Your task to perform on an android device: Go to wifi settings Image 0: 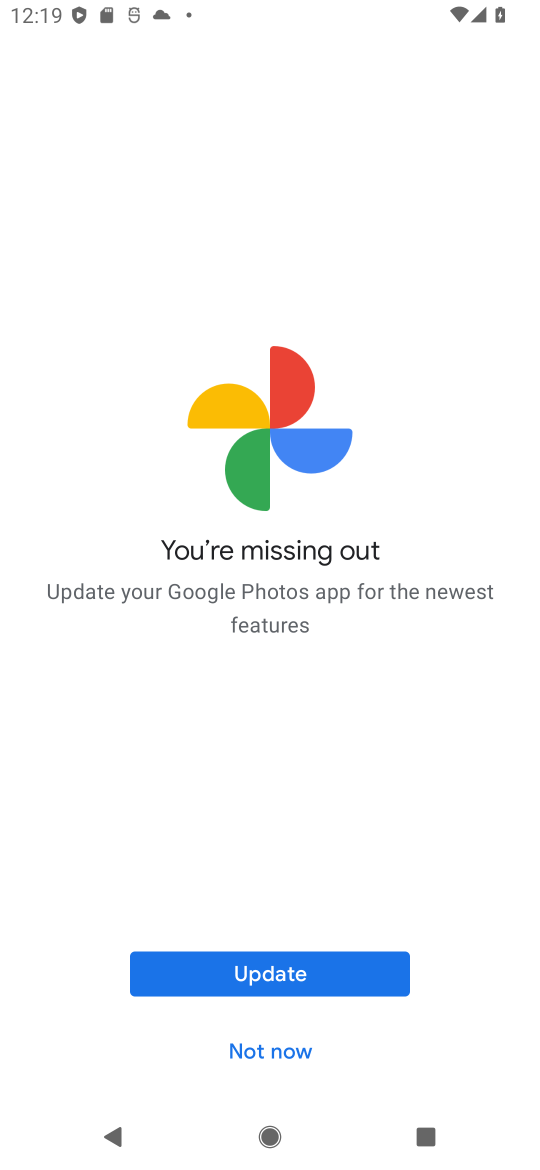
Step 0: press home button
Your task to perform on an android device: Go to wifi settings Image 1: 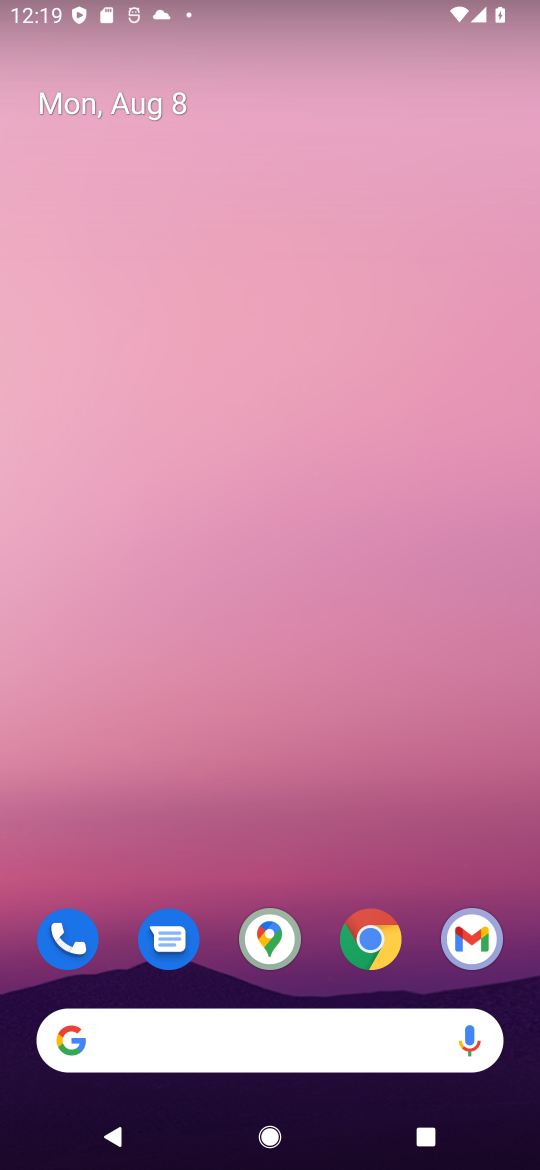
Step 1: drag from (173, 1037) to (318, 438)
Your task to perform on an android device: Go to wifi settings Image 2: 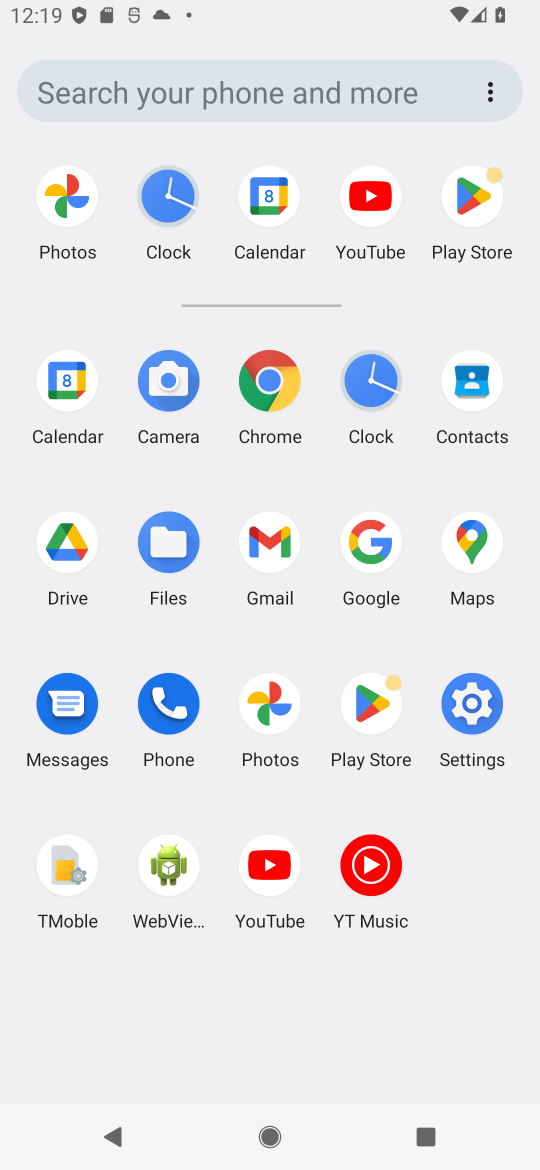
Step 2: click (471, 704)
Your task to perform on an android device: Go to wifi settings Image 3: 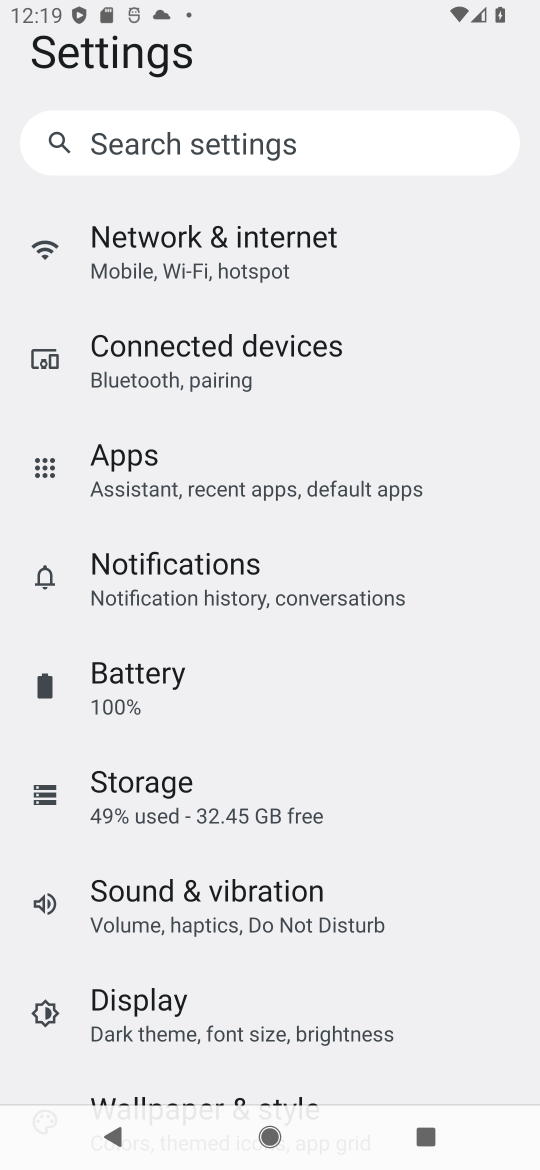
Step 3: click (213, 270)
Your task to perform on an android device: Go to wifi settings Image 4: 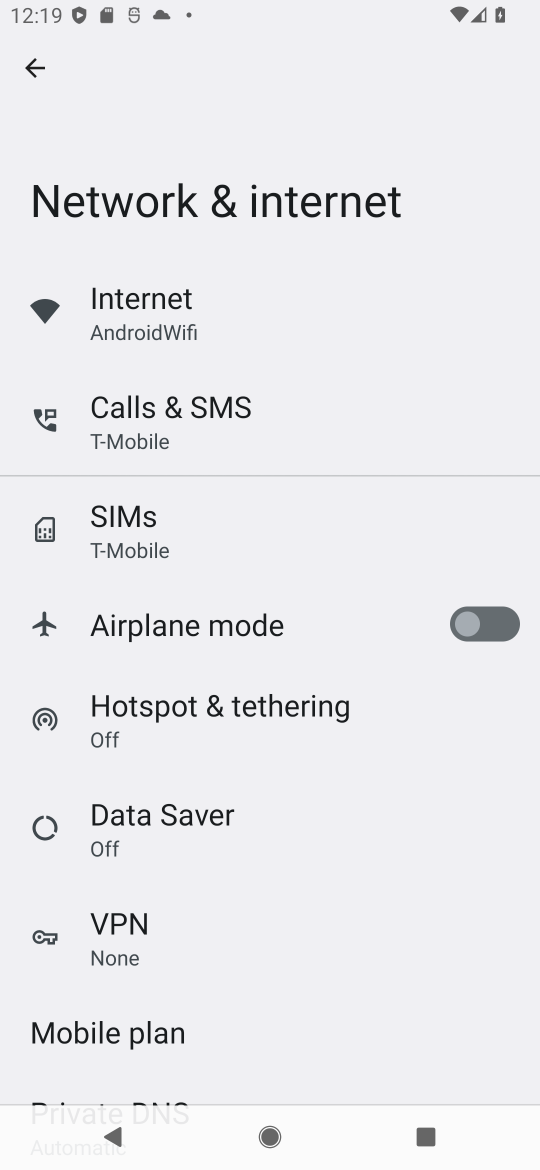
Step 4: click (168, 335)
Your task to perform on an android device: Go to wifi settings Image 5: 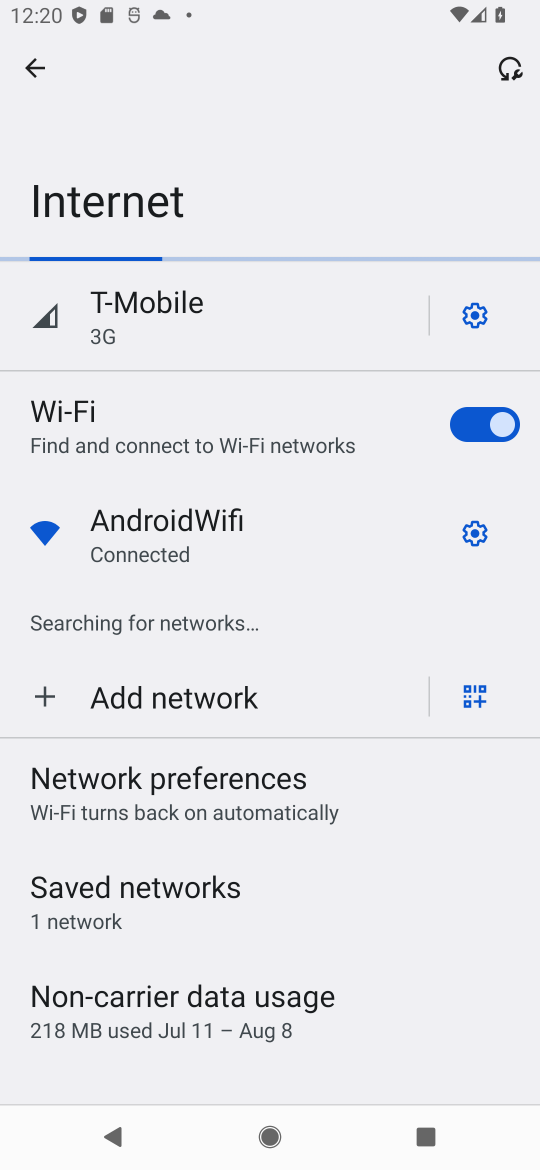
Step 5: click (476, 532)
Your task to perform on an android device: Go to wifi settings Image 6: 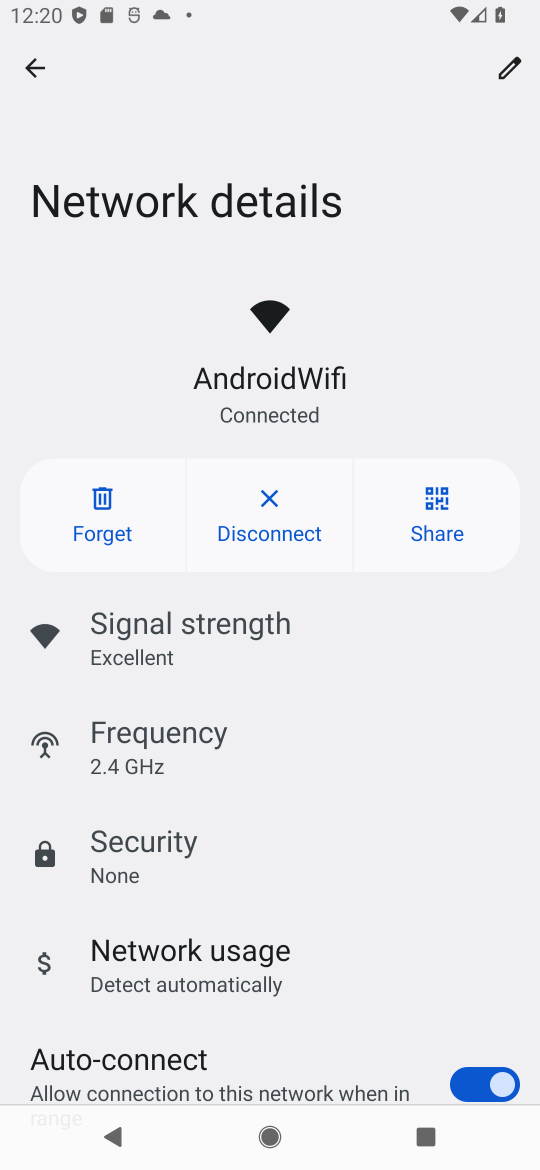
Step 6: task complete